Your task to perform on an android device: turn off notifications settings in the gmail app Image 0: 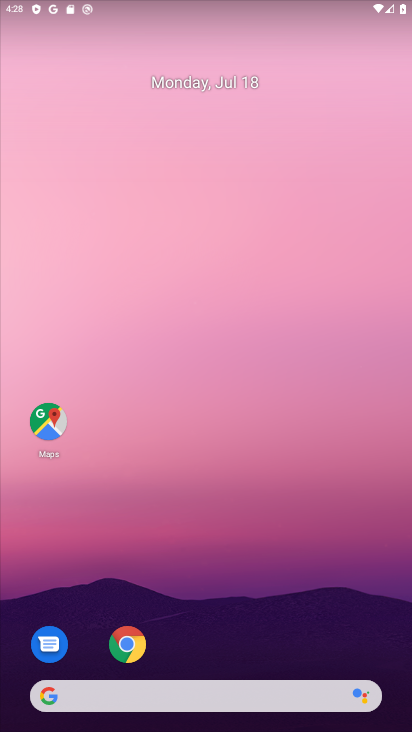
Step 0: press home button
Your task to perform on an android device: turn off notifications settings in the gmail app Image 1: 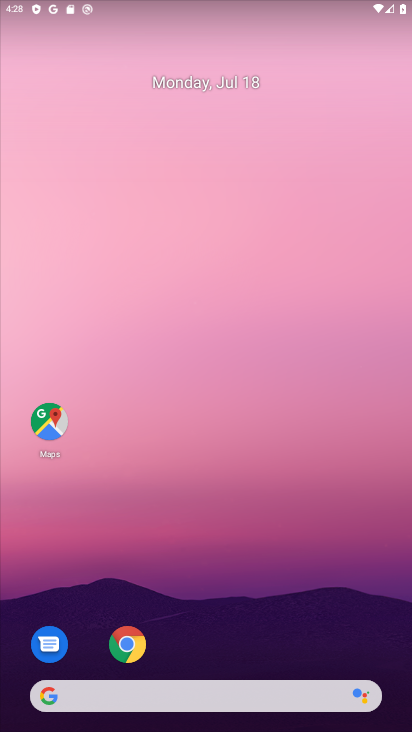
Step 1: drag from (266, 565) to (213, 5)
Your task to perform on an android device: turn off notifications settings in the gmail app Image 2: 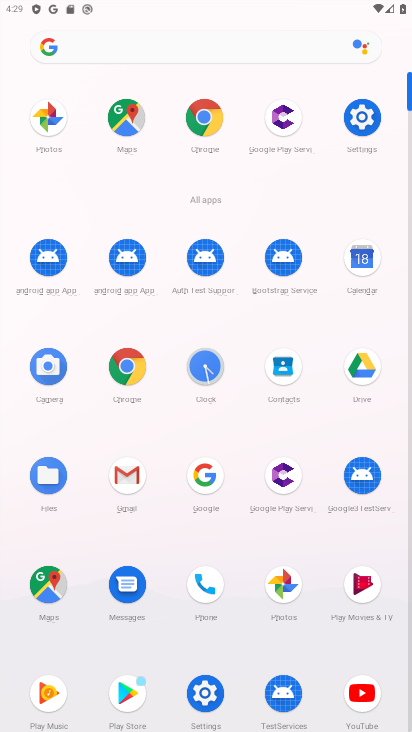
Step 2: click (123, 474)
Your task to perform on an android device: turn off notifications settings in the gmail app Image 3: 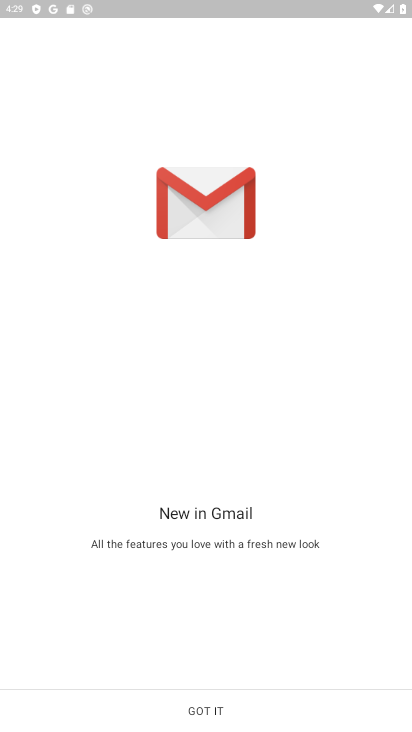
Step 3: click (203, 705)
Your task to perform on an android device: turn off notifications settings in the gmail app Image 4: 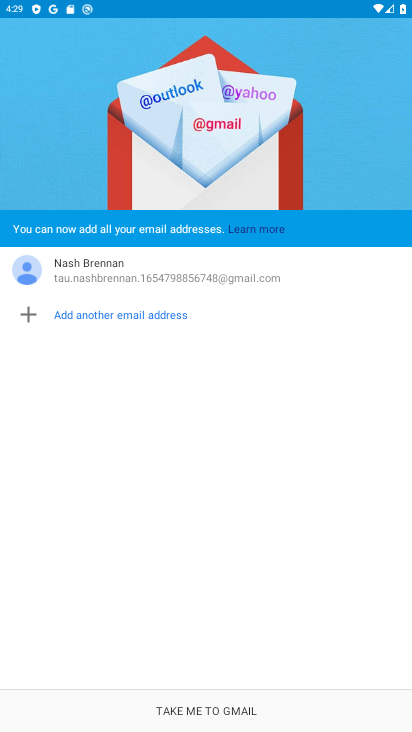
Step 4: click (207, 708)
Your task to perform on an android device: turn off notifications settings in the gmail app Image 5: 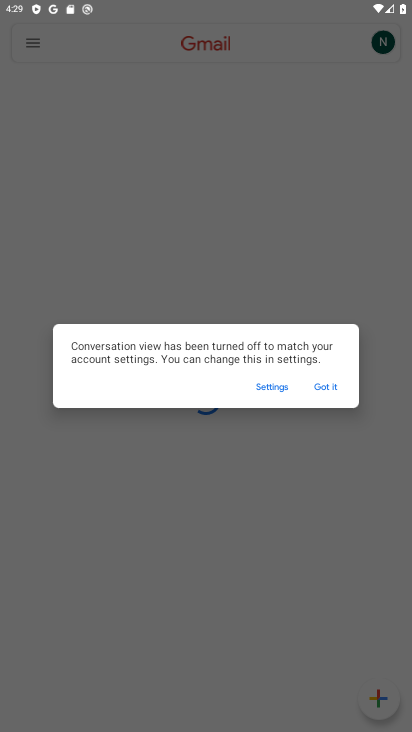
Step 5: click (326, 387)
Your task to perform on an android device: turn off notifications settings in the gmail app Image 6: 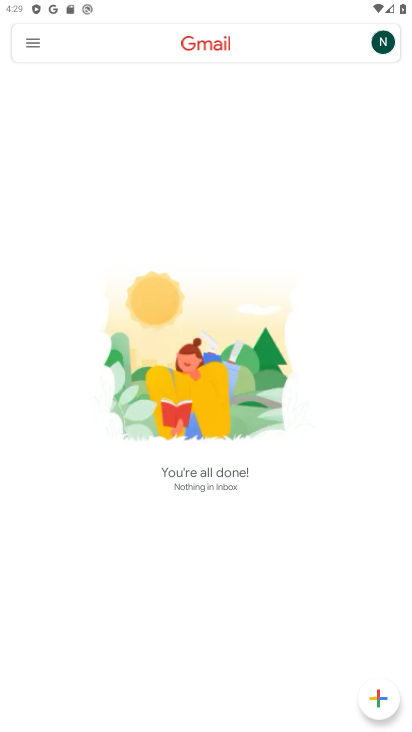
Step 6: click (37, 34)
Your task to perform on an android device: turn off notifications settings in the gmail app Image 7: 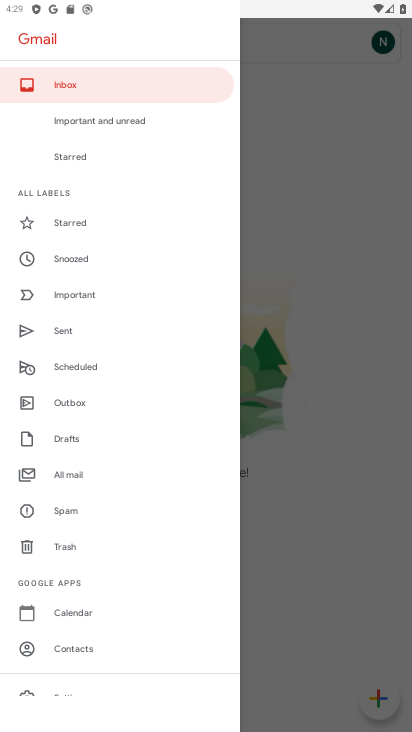
Step 7: drag from (171, 579) to (161, 236)
Your task to perform on an android device: turn off notifications settings in the gmail app Image 8: 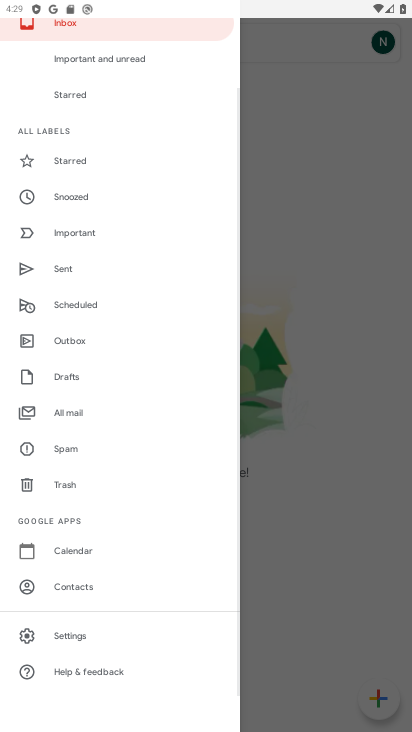
Step 8: click (71, 636)
Your task to perform on an android device: turn off notifications settings in the gmail app Image 9: 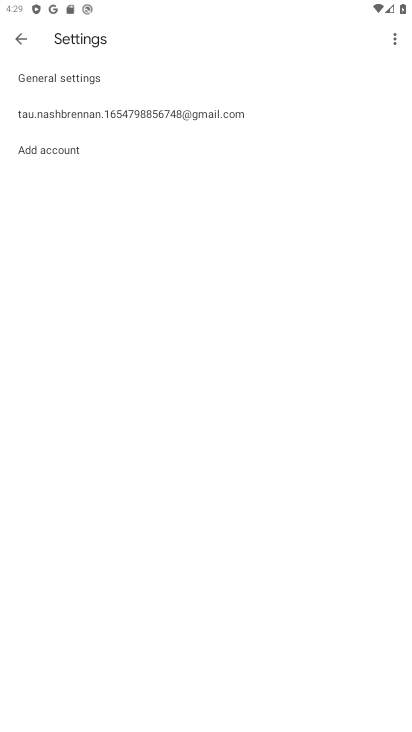
Step 9: click (93, 116)
Your task to perform on an android device: turn off notifications settings in the gmail app Image 10: 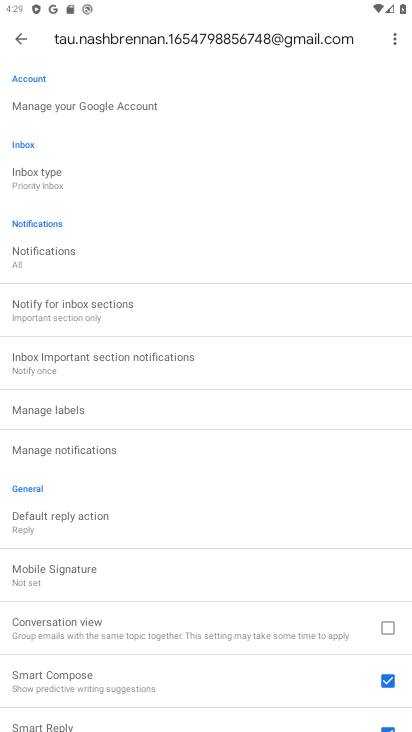
Step 10: click (59, 456)
Your task to perform on an android device: turn off notifications settings in the gmail app Image 11: 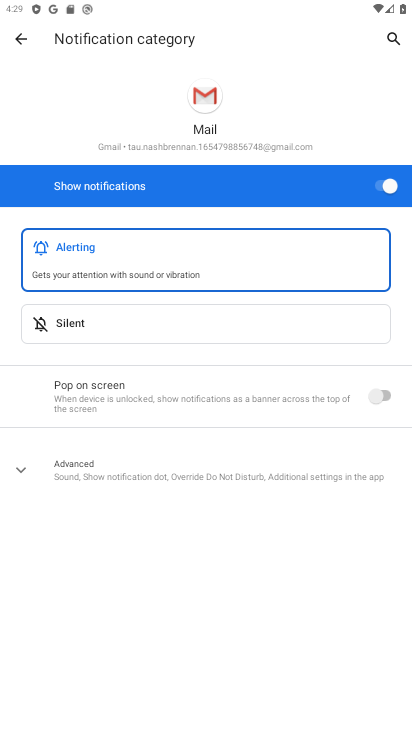
Step 11: click (395, 185)
Your task to perform on an android device: turn off notifications settings in the gmail app Image 12: 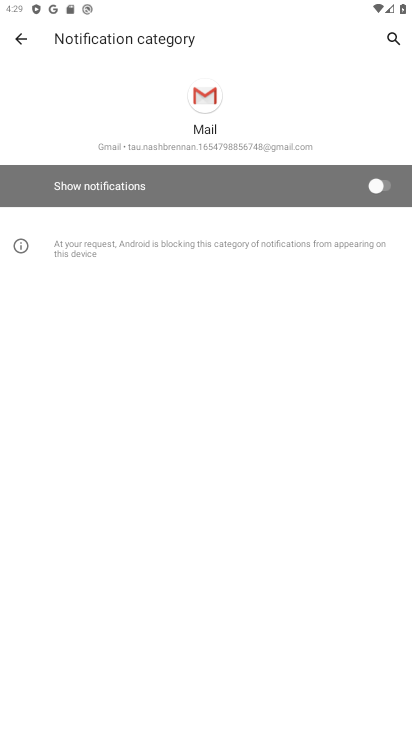
Step 12: task complete